Your task to perform on an android device: Search for vegetarian restaurants on Maps Image 0: 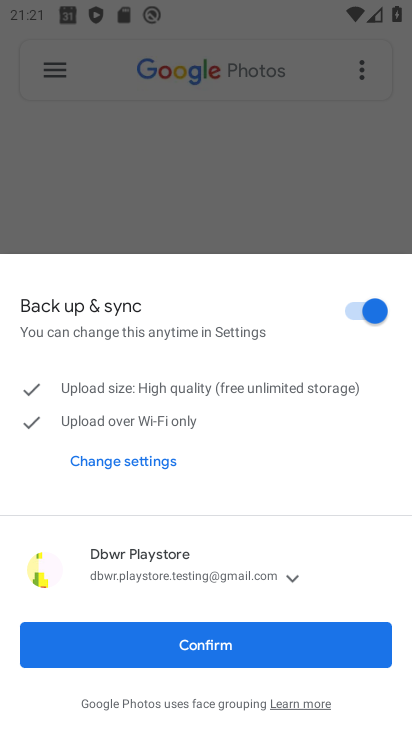
Step 0: click (319, 650)
Your task to perform on an android device: Search for vegetarian restaurants on Maps Image 1: 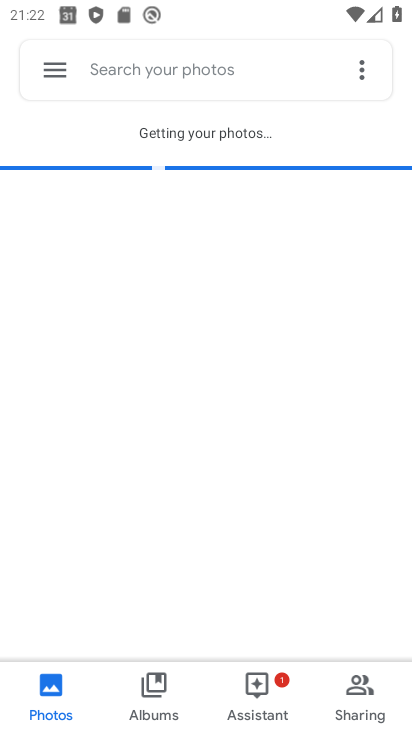
Step 1: press home button
Your task to perform on an android device: Search for vegetarian restaurants on Maps Image 2: 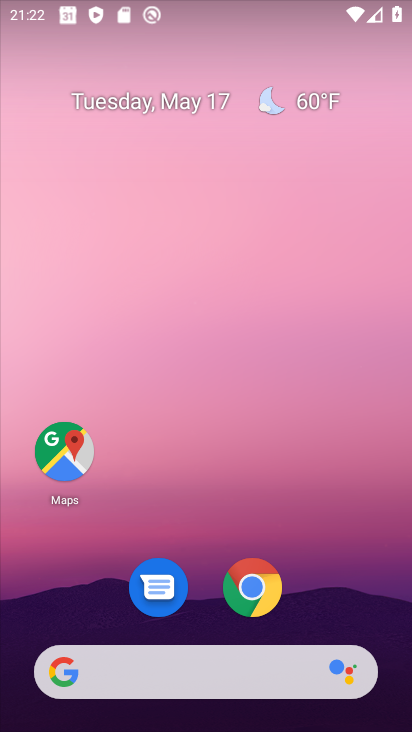
Step 2: drag from (270, 461) to (79, 97)
Your task to perform on an android device: Search for vegetarian restaurants on Maps Image 3: 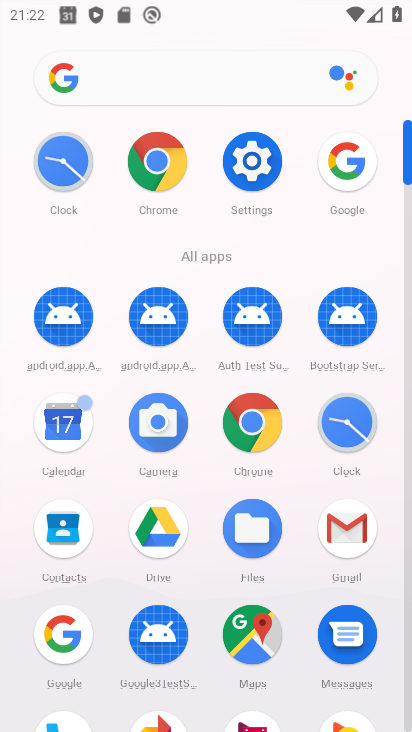
Step 3: click (241, 663)
Your task to perform on an android device: Search for vegetarian restaurants on Maps Image 4: 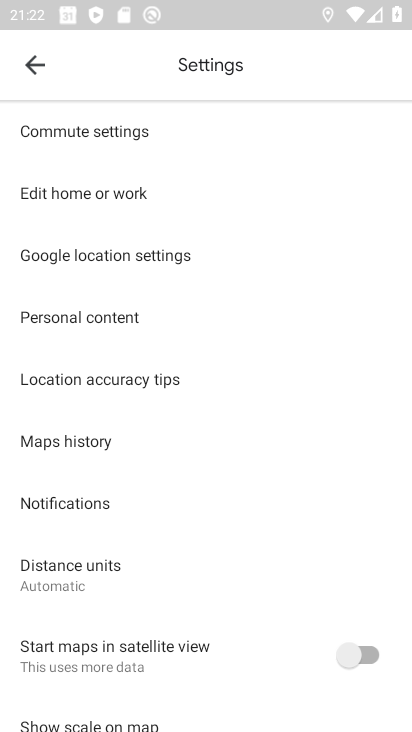
Step 4: click (34, 70)
Your task to perform on an android device: Search for vegetarian restaurants on Maps Image 5: 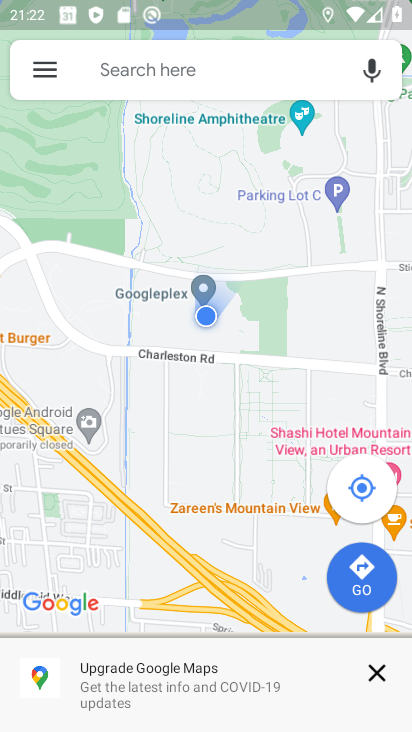
Step 5: click (159, 83)
Your task to perform on an android device: Search for vegetarian restaurants on Maps Image 6: 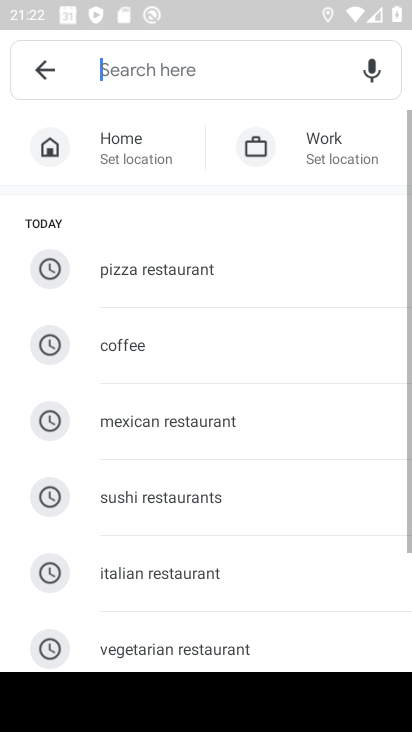
Step 6: click (191, 644)
Your task to perform on an android device: Search for vegetarian restaurants on Maps Image 7: 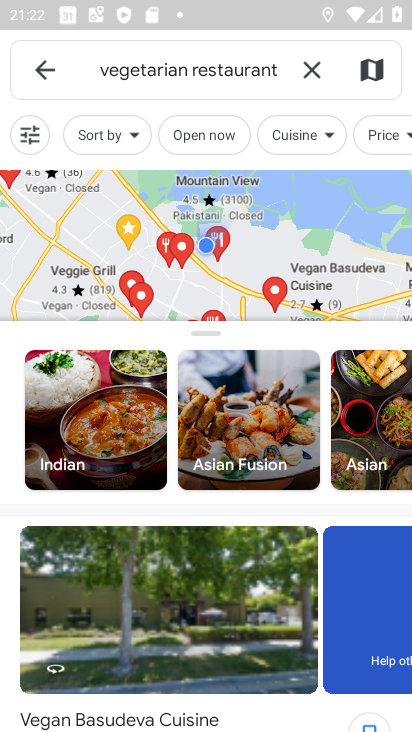
Step 7: task complete